Your task to perform on an android device: toggle pop-ups in chrome Image 0: 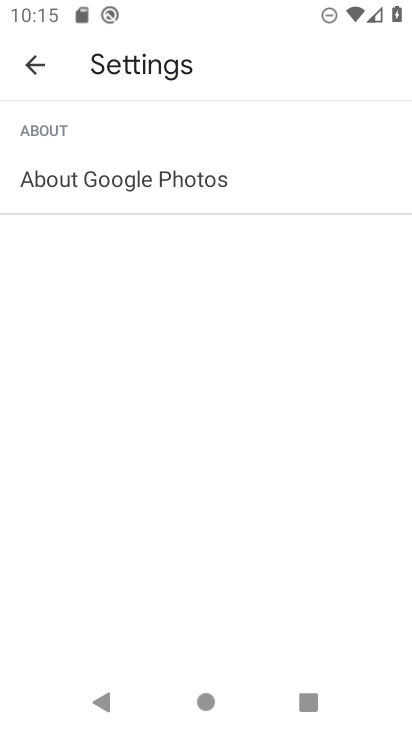
Step 0: press home button
Your task to perform on an android device: toggle pop-ups in chrome Image 1: 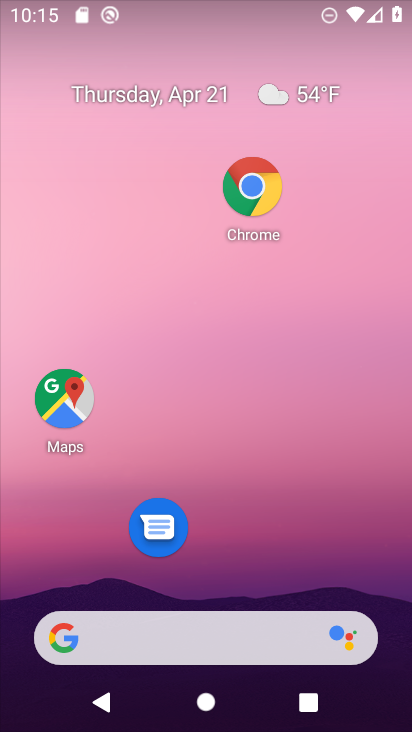
Step 1: click (257, 188)
Your task to perform on an android device: toggle pop-ups in chrome Image 2: 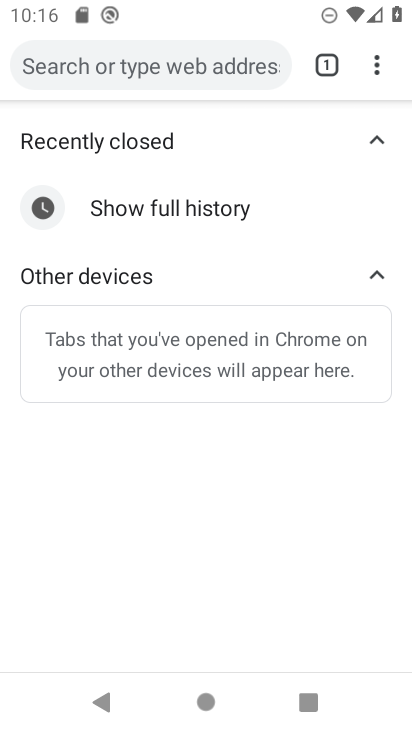
Step 2: drag from (375, 68) to (202, 552)
Your task to perform on an android device: toggle pop-ups in chrome Image 3: 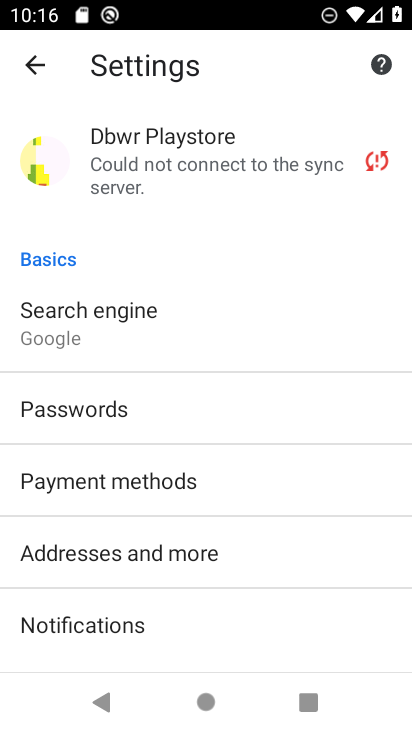
Step 3: drag from (207, 625) to (212, 267)
Your task to perform on an android device: toggle pop-ups in chrome Image 4: 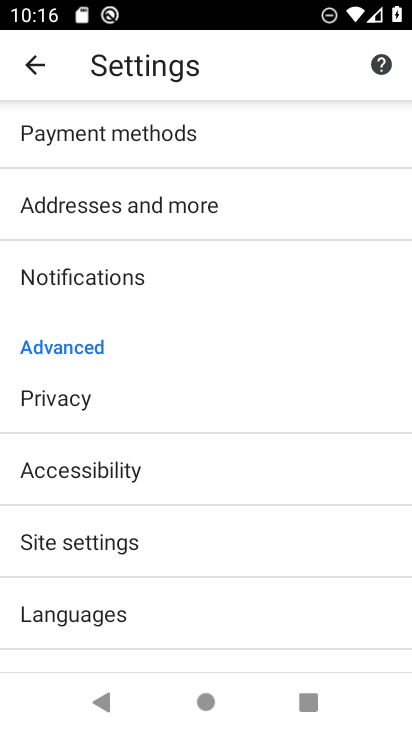
Step 4: click (94, 551)
Your task to perform on an android device: toggle pop-ups in chrome Image 5: 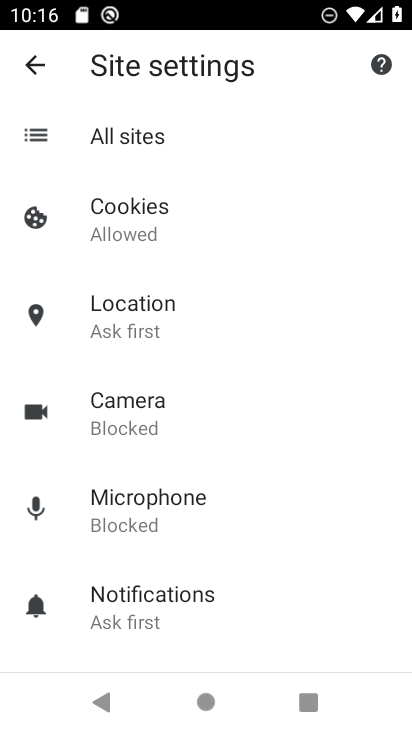
Step 5: drag from (171, 639) to (212, 191)
Your task to perform on an android device: toggle pop-ups in chrome Image 6: 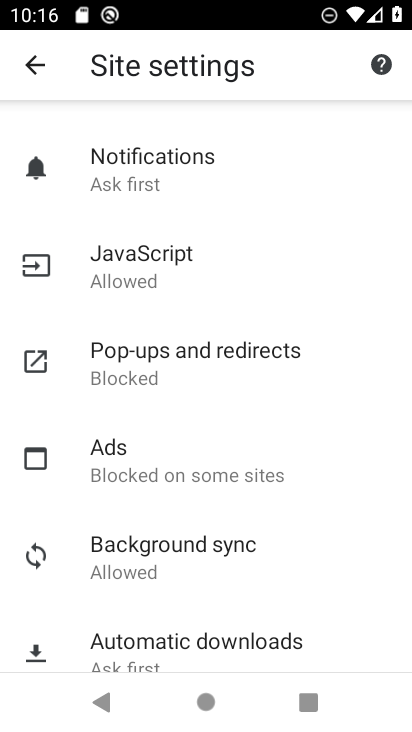
Step 6: click (169, 352)
Your task to perform on an android device: toggle pop-ups in chrome Image 7: 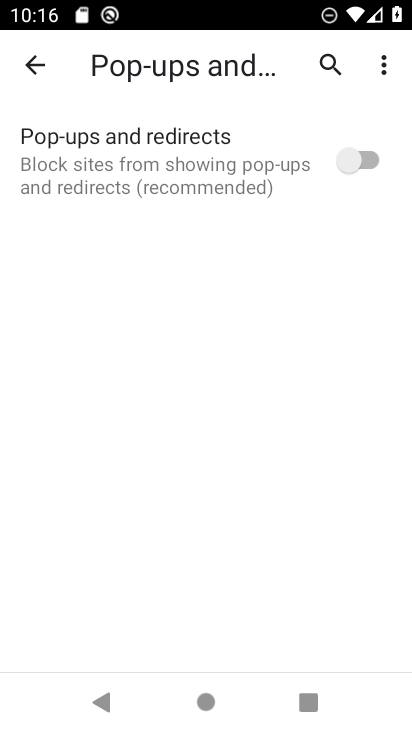
Step 7: click (367, 158)
Your task to perform on an android device: toggle pop-ups in chrome Image 8: 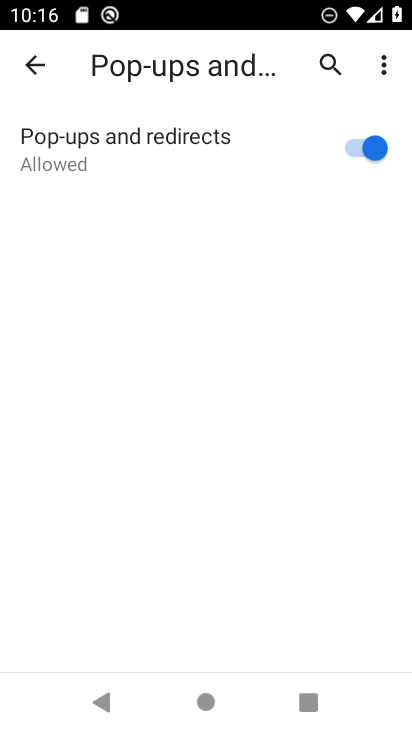
Step 8: task complete